Your task to perform on an android device: Open Google Image 0: 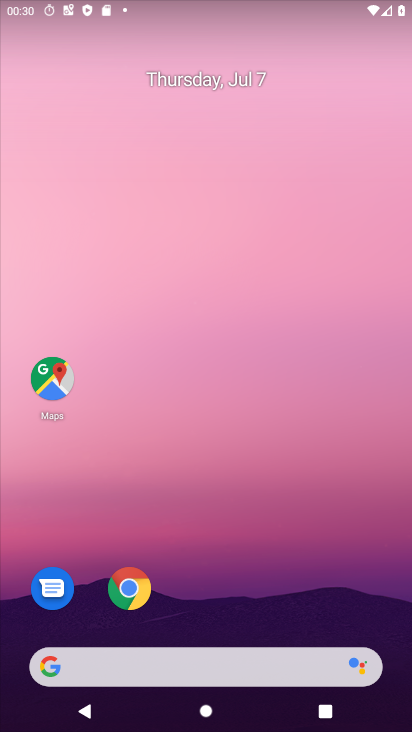
Step 0: drag from (224, 678) to (213, 52)
Your task to perform on an android device: Open Google Image 1: 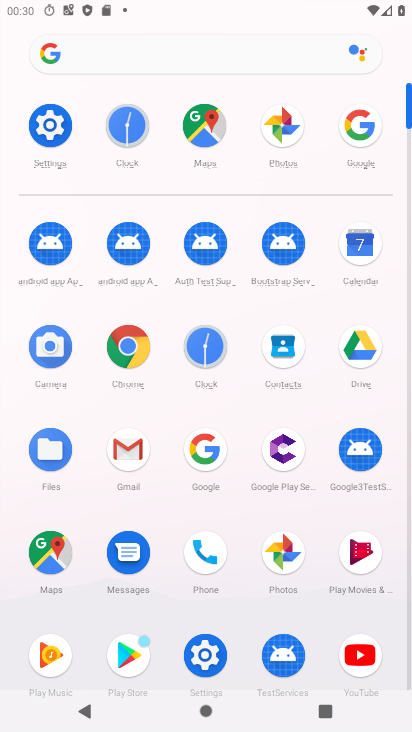
Step 1: click (202, 444)
Your task to perform on an android device: Open Google Image 2: 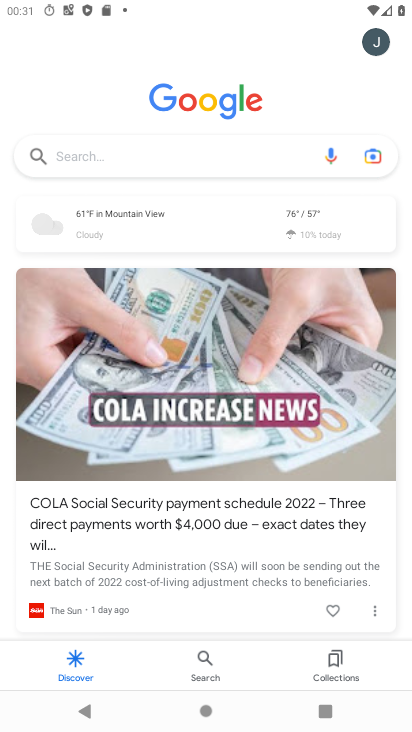
Step 2: task complete